Your task to perform on an android device: turn on airplane mode Image 0: 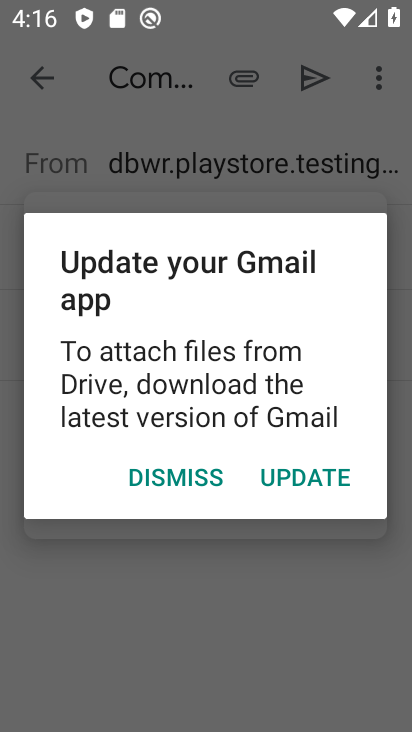
Step 0: click (181, 471)
Your task to perform on an android device: turn on airplane mode Image 1: 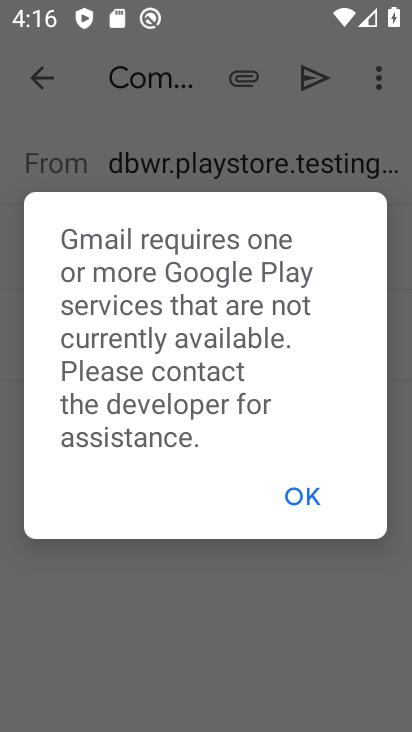
Step 1: click (305, 479)
Your task to perform on an android device: turn on airplane mode Image 2: 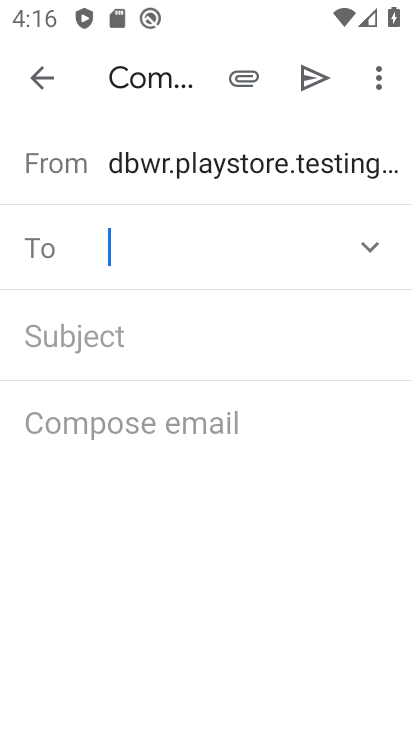
Step 2: click (33, 72)
Your task to perform on an android device: turn on airplane mode Image 3: 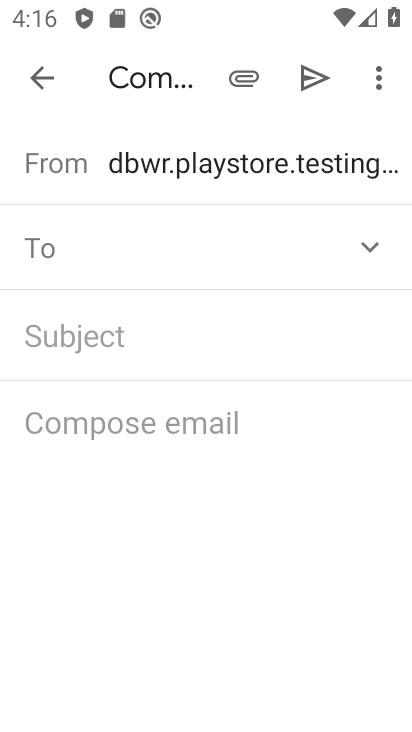
Step 3: click (35, 70)
Your task to perform on an android device: turn on airplane mode Image 4: 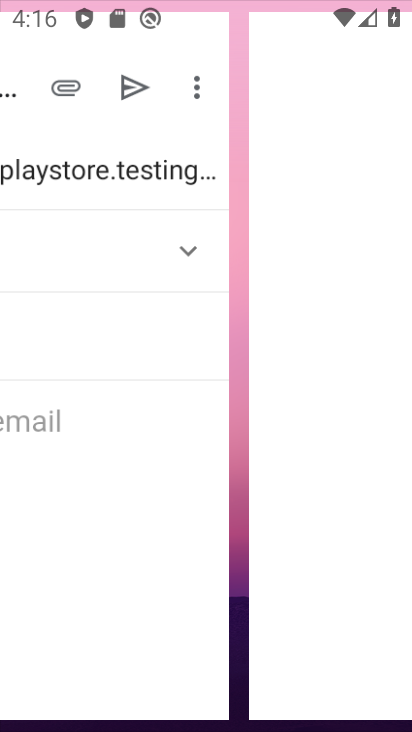
Step 4: click (35, 70)
Your task to perform on an android device: turn on airplane mode Image 5: 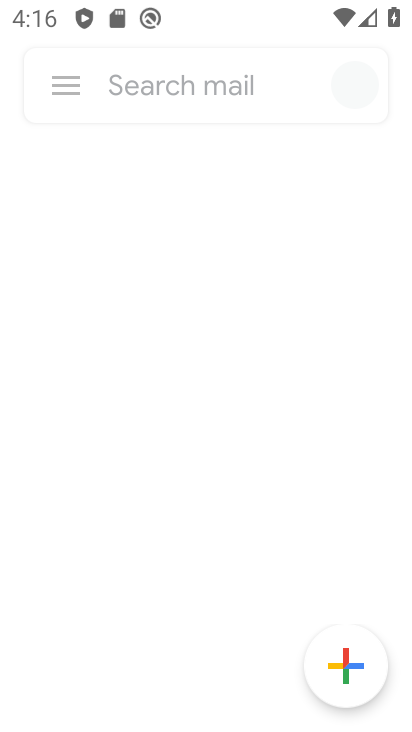
Step 5: click (35, 70)
Your task to perform on an android device: turn on airplane mode Image 6: 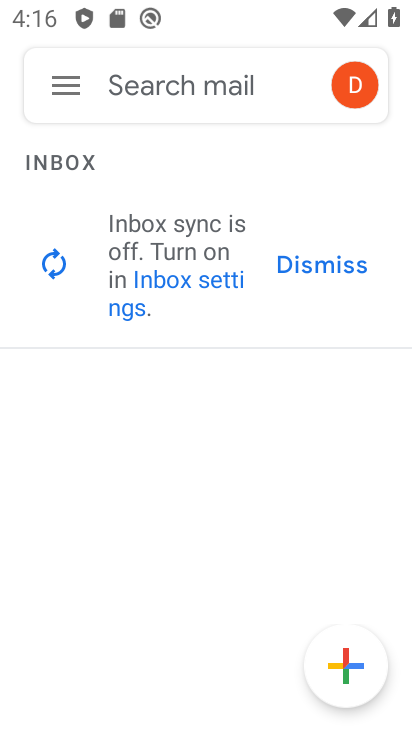
Step 6: press back button
Your task to perform on an android device: turn on airplane mode Image 7: 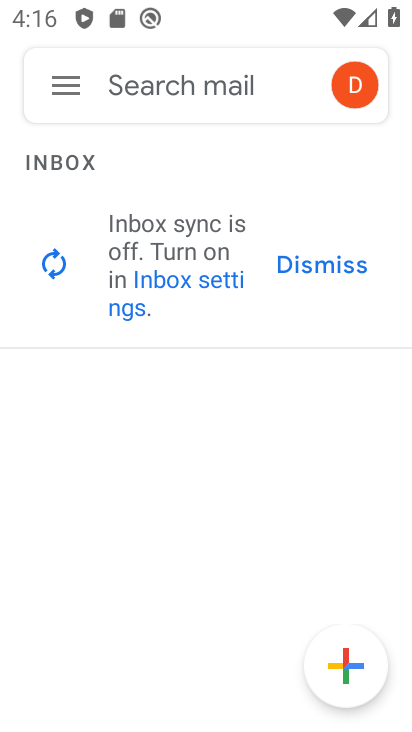
Step 7: press back button
Your task to perform on an android device: turn on airplane mode Image 8: 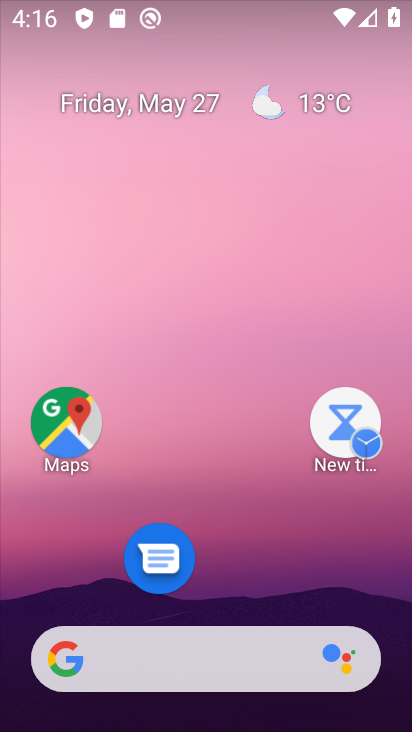
Step 8: drag from (216, 386) to (171, 200)
Your task to perform on an android device: turn on airplane mode Image 9: 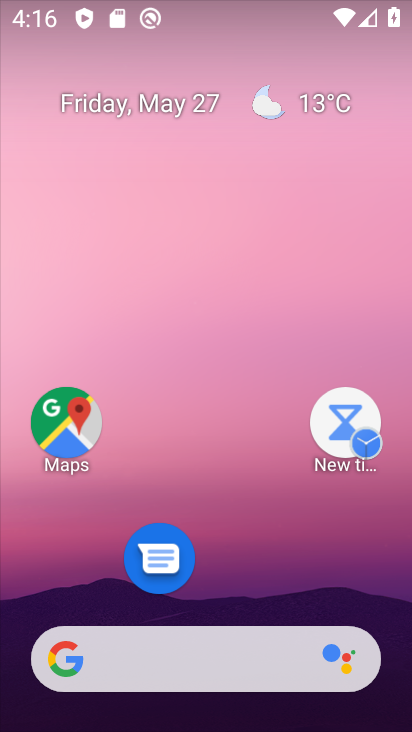
Step 9: drag from (250, 593) to (226, 214)
Your task to perform on an android device: turn on airplane mode Image 10: 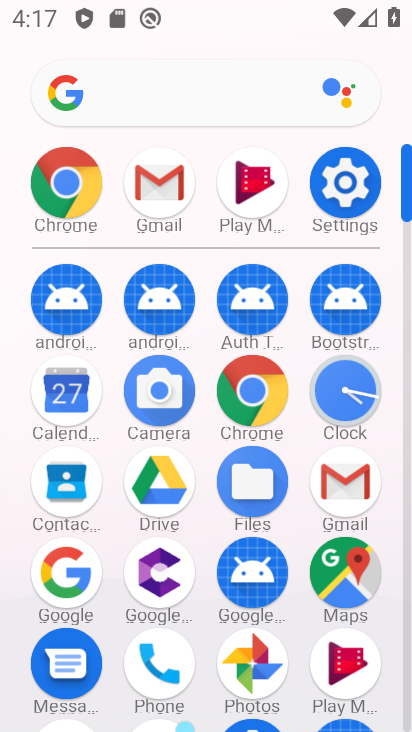
Step 10: click (259, 398)
Your task to perform on an android device: turn on airplane mode Image 11: 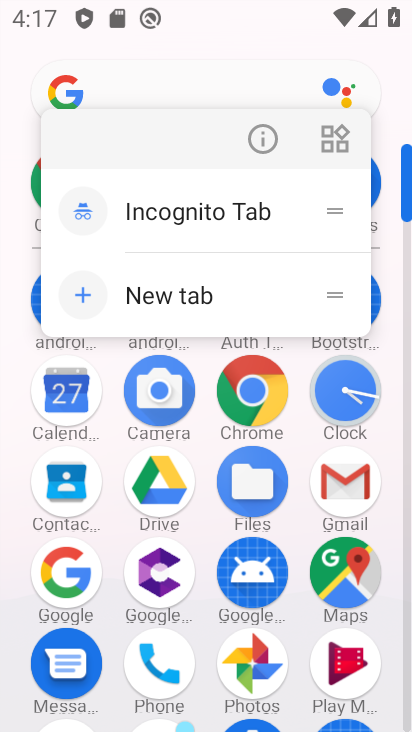
Step 11: click (259, 398)
Your task to perform on an android device: turn on airplane mode Image 12: 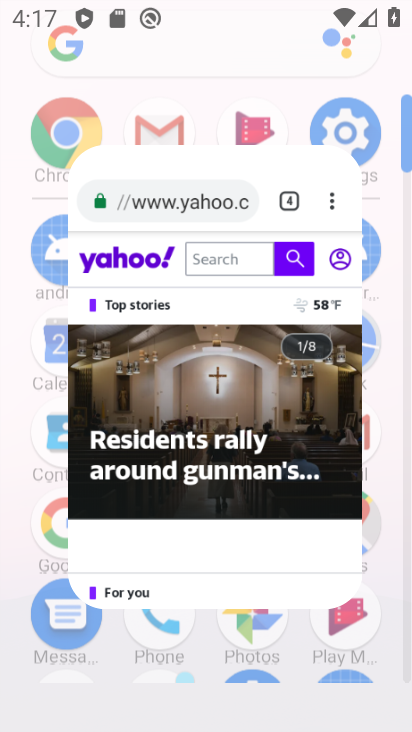
Step 12: click (259, 398)
Your task to perform on an android device: turn on airplane mode Image 13: 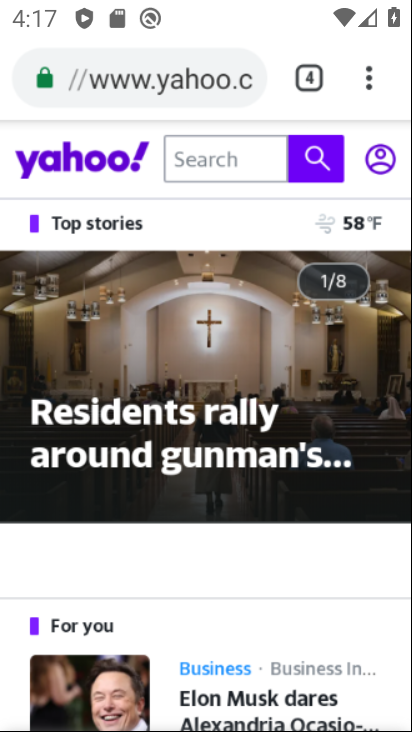
Step 13: click (259, 398)
Your task to perform on an android device: turn on airplane mode Image 14: 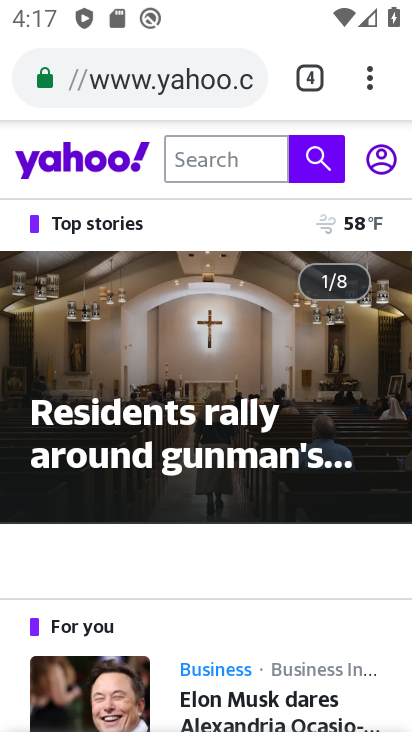
Step 14: press back button
Your task to perform on an android device: turn on airplane mode Image 15: 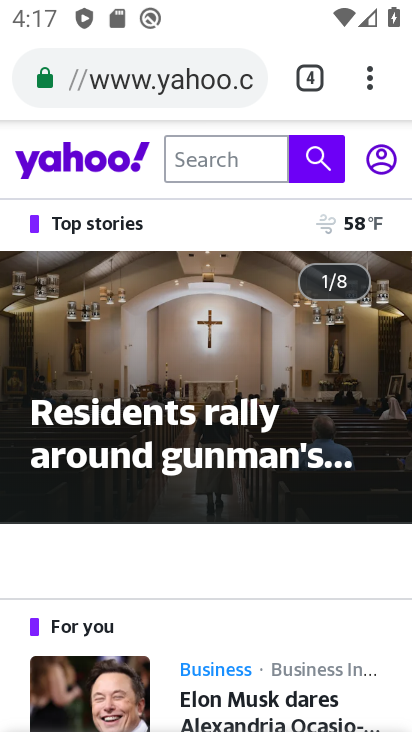
Step 15: press back button
Your task to perform on an android device: turn on airplane mode Image 16: 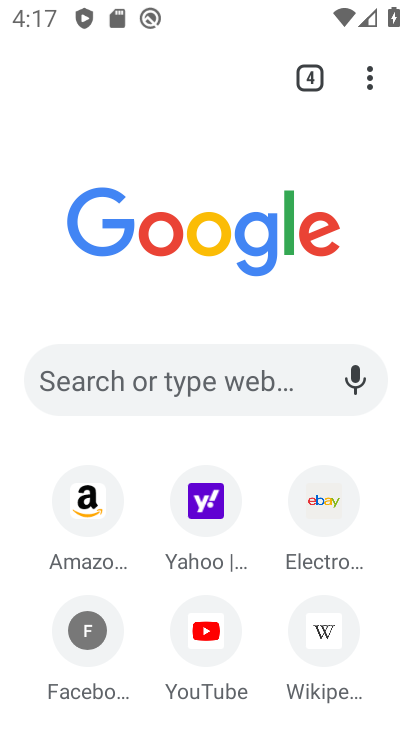
Step 16: press back button
Your task to perform on an android device: turn on airplane mode Image 17: 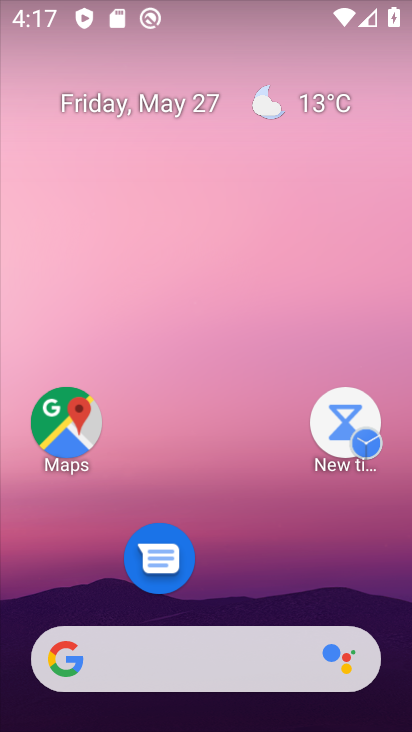
Step 17: drag from (278, 663) to (164, 126)
Your task to perform on an android device: turn on airplane mode Image 18: 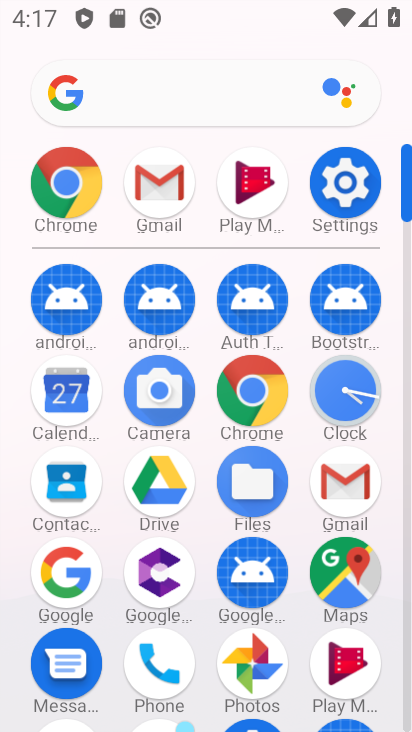
Step 18: click (348, 180)
Your task to perform on an android device: turn on airplane mode Image 19: 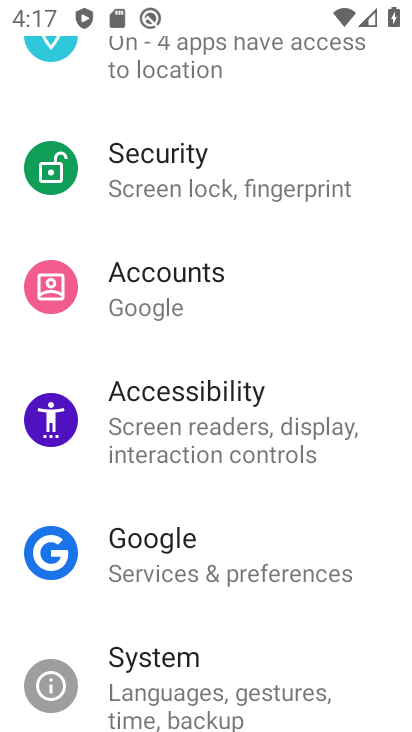
Step 19: click (176, 552)
Your task to perform on an android device: turn on airplane mode Image 20: 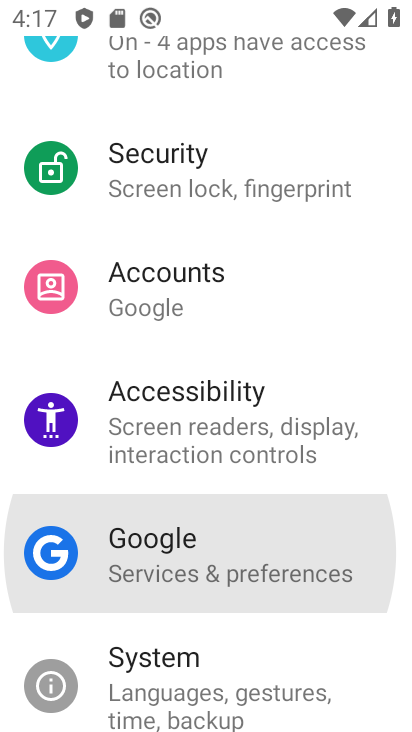
Step 20: drag from (182, 247) to (258, 577)
Your task to perform on an android device: turn on airplane mode Image 21: 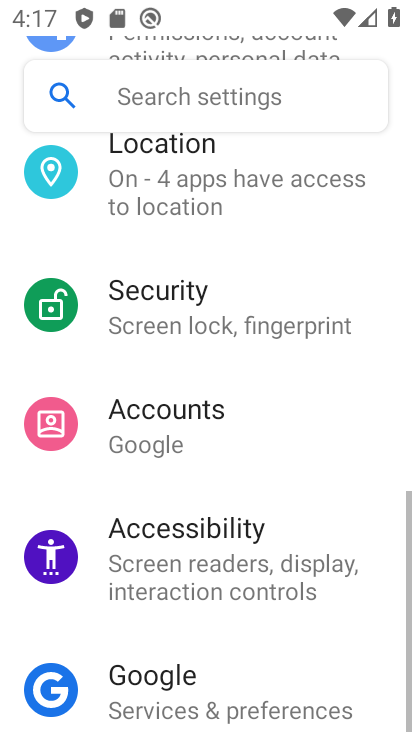
Step 21: drag from (179, 307) to (220, 572)
Your task to perform on an android device: turn on airplane mode Image 22: 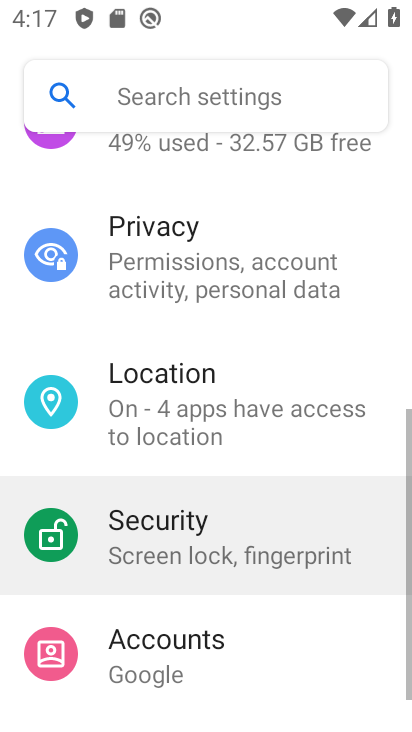
Step 22: drag from (205, 425) to (245, 581)
Your task to perform on an android device: turn on airplane mode Image 23: 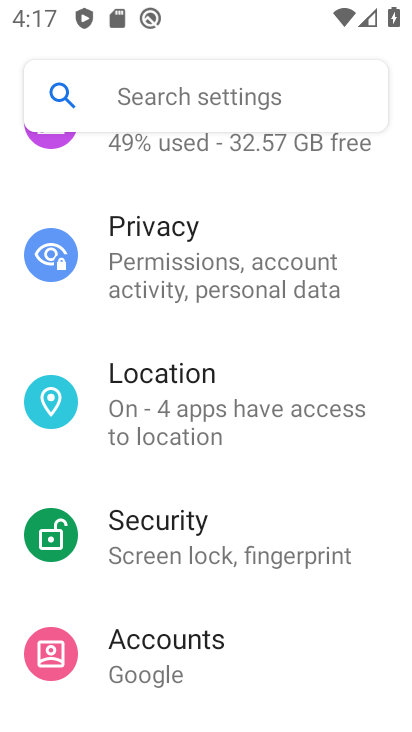
Step 23: drag from (242, 616) to (154, 654)
Your task to perform on an android device: turn on airplane mode Image 24: 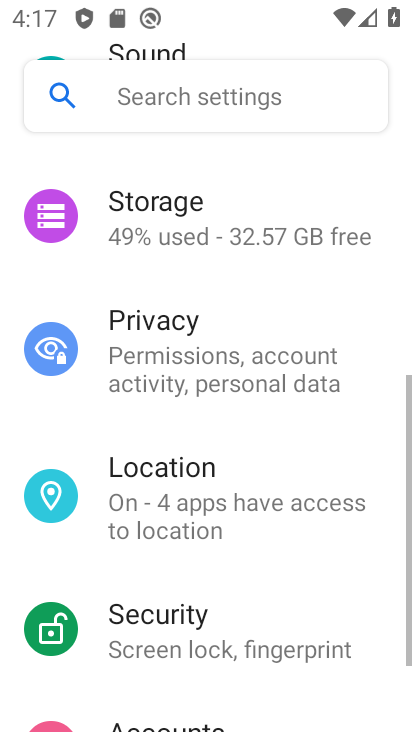
Step 24: drag from (99, 334) to (159, 651)
Your task to perform on an android device: turn on airplane mode Image 25: 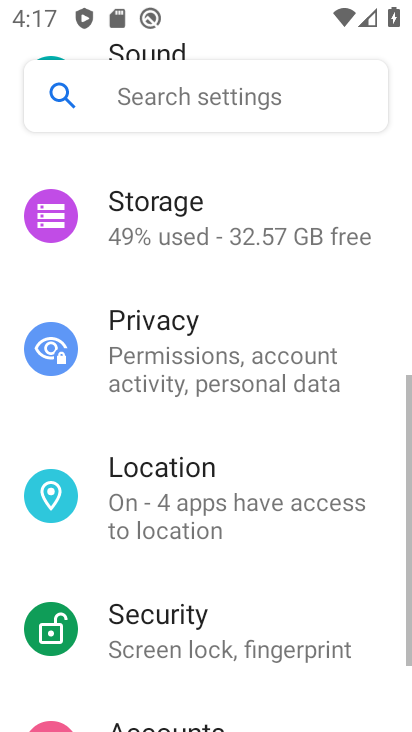
Step 25: drag from (196, 303) to (131, 515)
Your task to perform on an android device: turn on airplane mode Image 26: 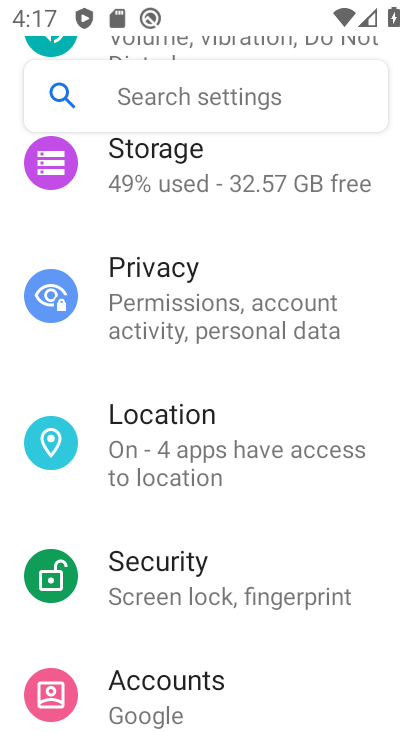
Step 26: drag from (235, 598) to (145, 609)
Your task to perform on an android device: turn on airplane mode Image 27: 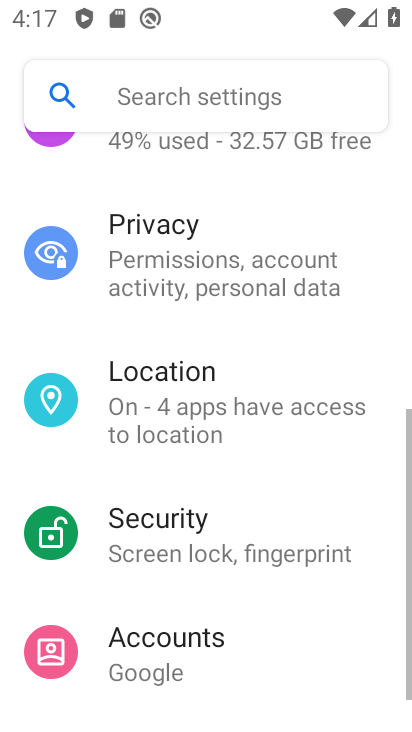
Step 27: drag from (101, 288) to (209, 560)
Your task to perform on an android device: turn on airplane mode Image 28: 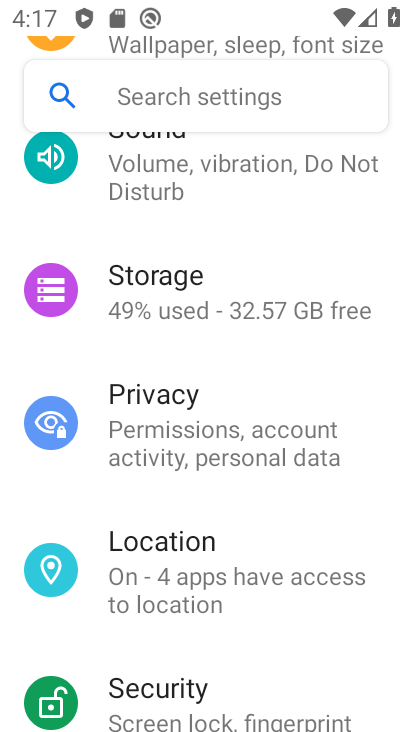
Step 28: drag from (202, 217) to (247, 491)
Your task to perform on an android device: turn on airplane mode Image 29: 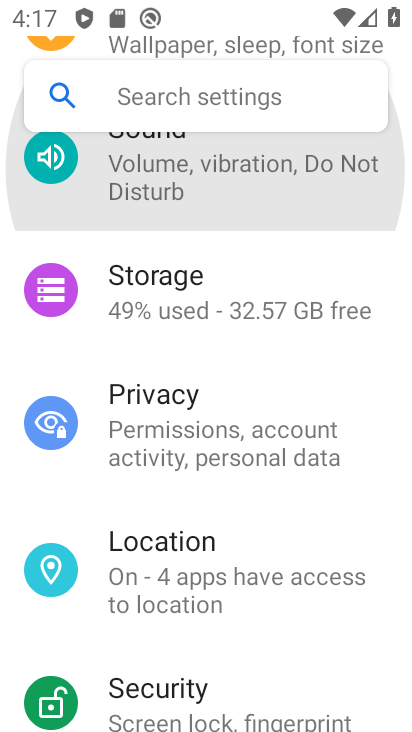
Step 29: drag from (176, 409) to (174, 561)
Your task to perform on an android device: turn on airplane mode Image 30: 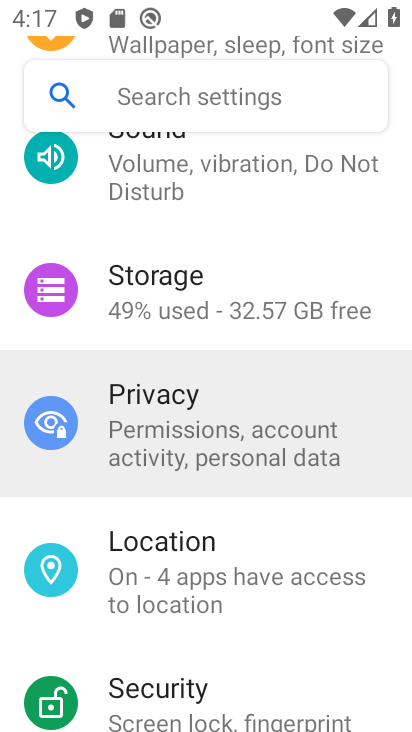
Step 30: drag from (162, 506) to (188, 583)
Your task to perform on an android device: turn on airplane mode Image 31: 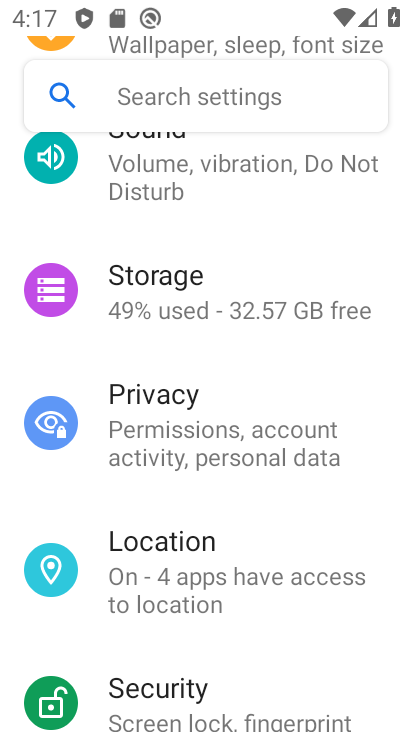
Step 31: drag from (161, 204) to (222, 518)
Your task to perform on an android device: turn on airplane mode Image 32: 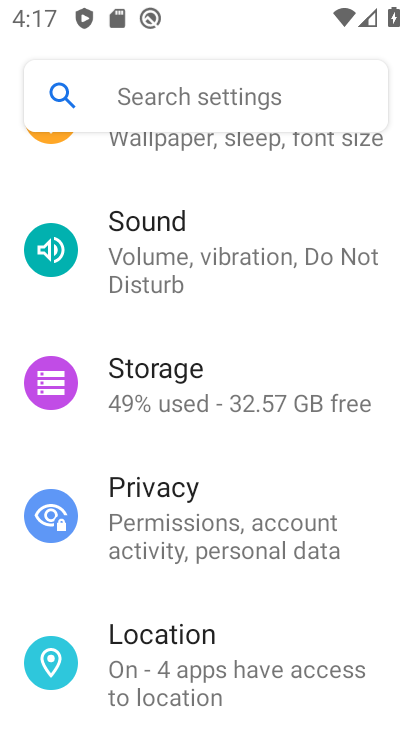
Step 32: drag from (168, 168) to (265, 515)
Your task to perform on an android device: turn on airplane mode Image 33: 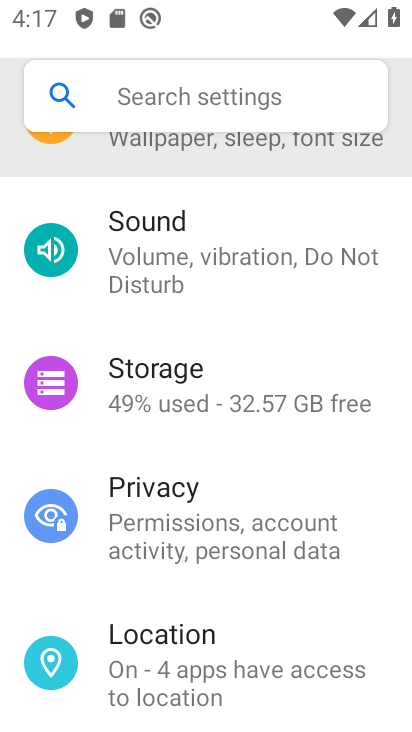
Step 33: drag from (206, 255) to (251, 574)
Your task to perform on an android device: turn on airplane mode Image 34: 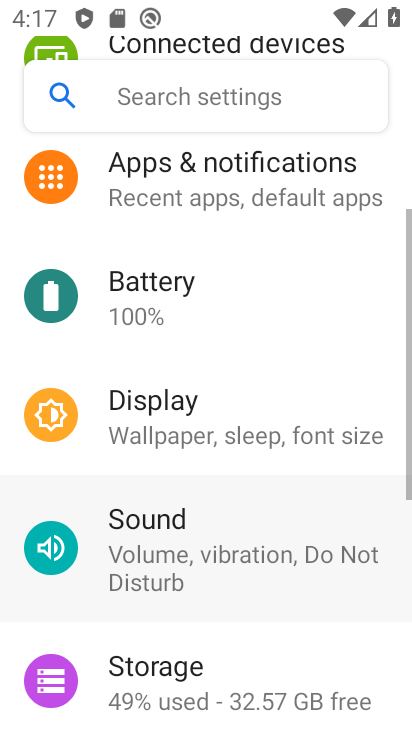
Step 34: drag from (232, 496) to (240, 533)
Your task to perform on an android device: turn on airplane mode Image 35: 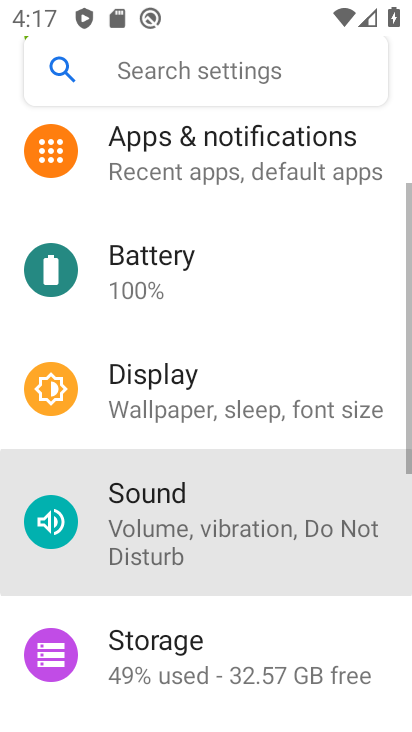
Step 35: click (262, 677)
Your task to perform on an android device: turn on airplane mode Image 36: 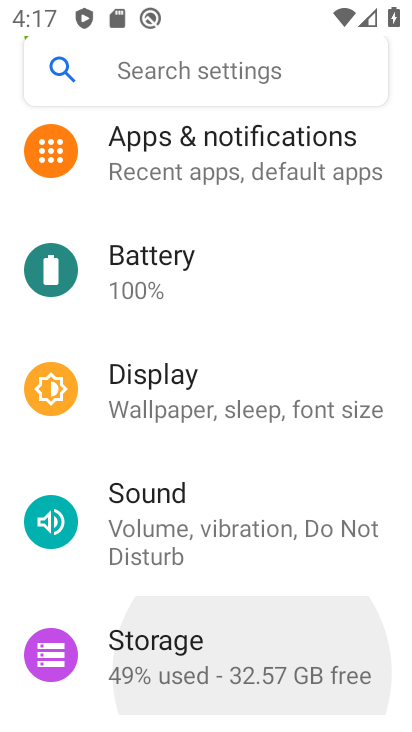
Step 36: drag from (191, 297) to (244, 622)
Your task to perform on an android device: turn on airplane mode Image 37: 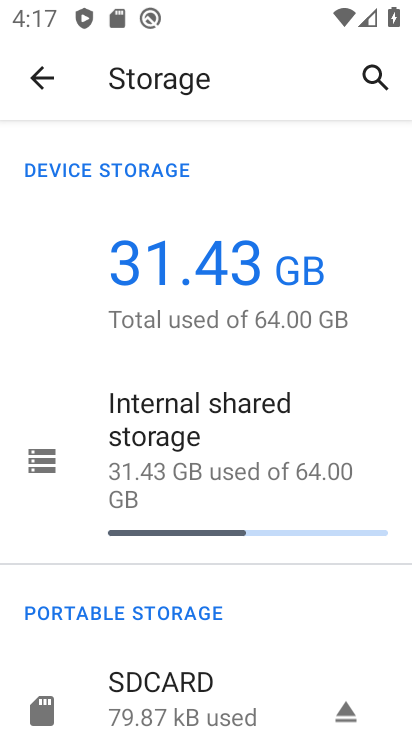
Step 37: click (33, 68)
Your task to perform on an android device: turn on airplane mode Image 38: 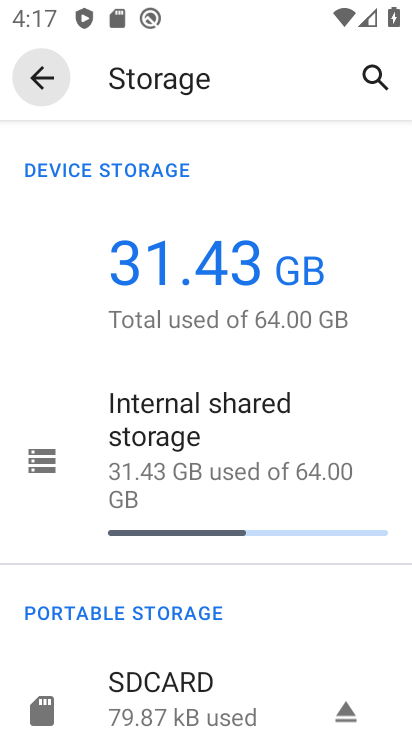
Step 38: click (34, 81)
Your task to perform on an android device: turn on airplane mode Image 39: 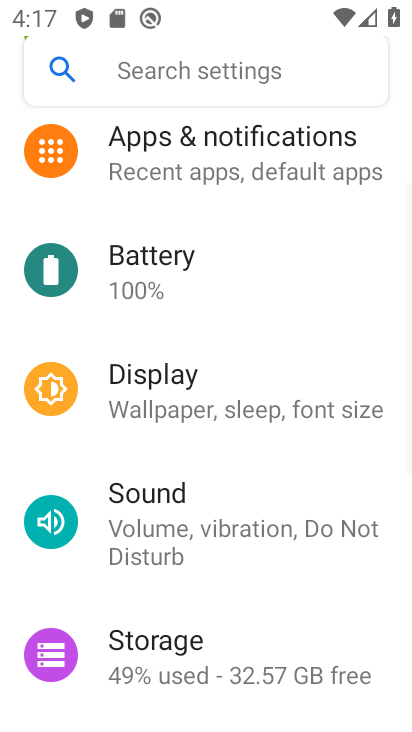
Step 39: drag from (214, 167) to (253, 470)
Your task to perform on an android device: turn on airplane mode Image 40: 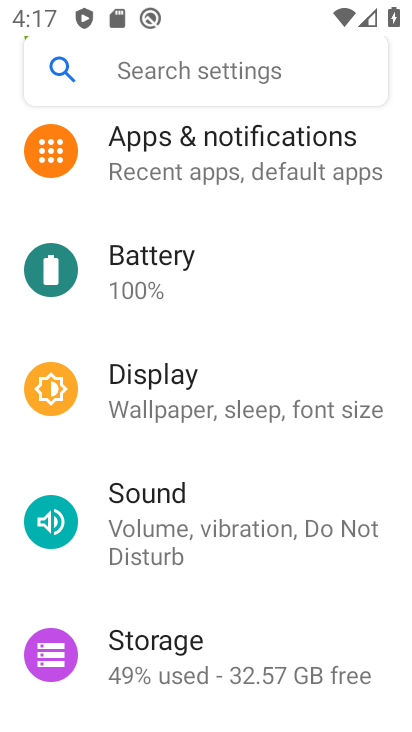
Step 40: click (326, 608)
Your task to perform on an android device: turn on airplane mode Image 41: 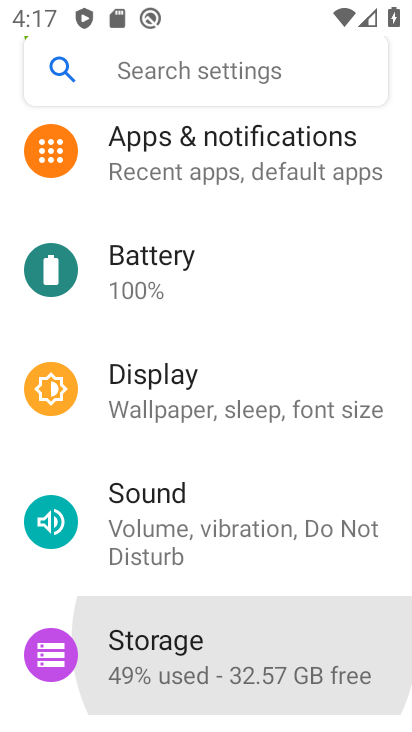
Step 41: drag from (241, 223) to (265, 646)
Your task to perform on an android device: turn on airplane mode Image 42: 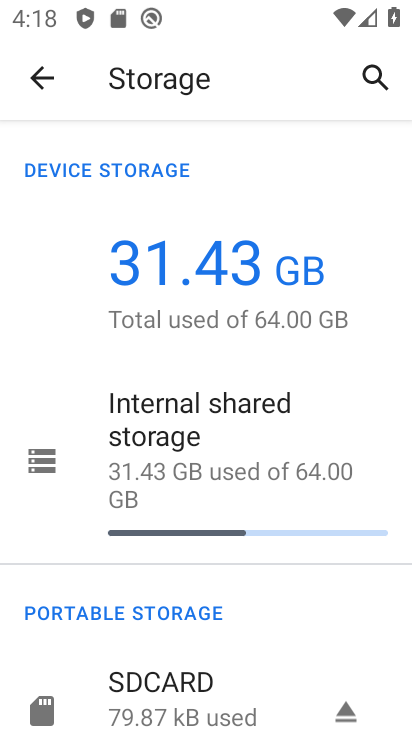
Step 42: click (36, 81)
Your task to perform on an android device: turn on airplane mode Image 43: 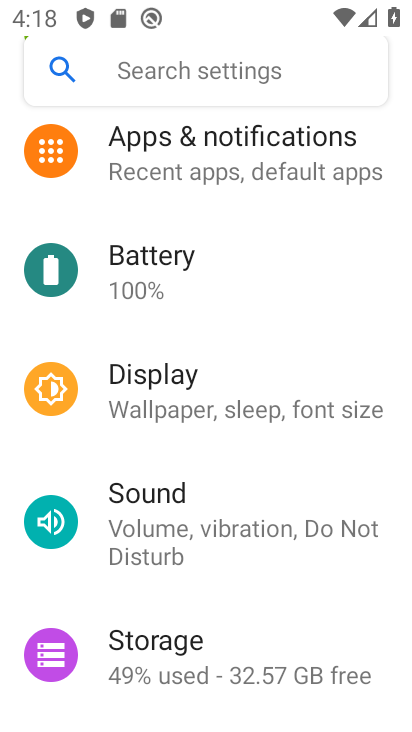
Step 43: drag from (196, 150) to (265, 450)
Your task to perform on an android device: turn on airplane mode Image 44: 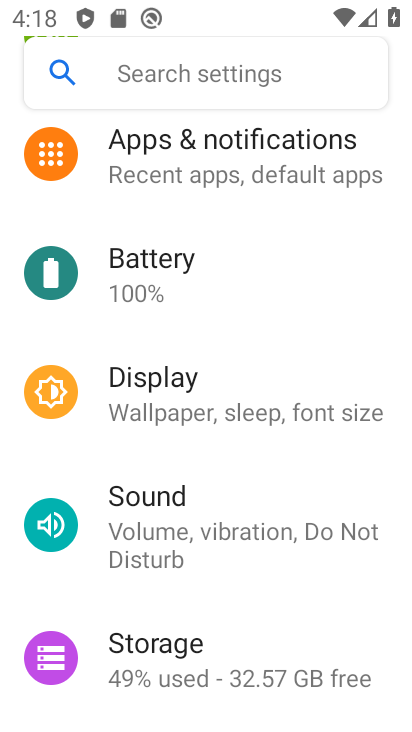
Step 44: drag from (205, 452) to (218, 492)
Your task to perform on an android device: turn on airplane mode Image 45: 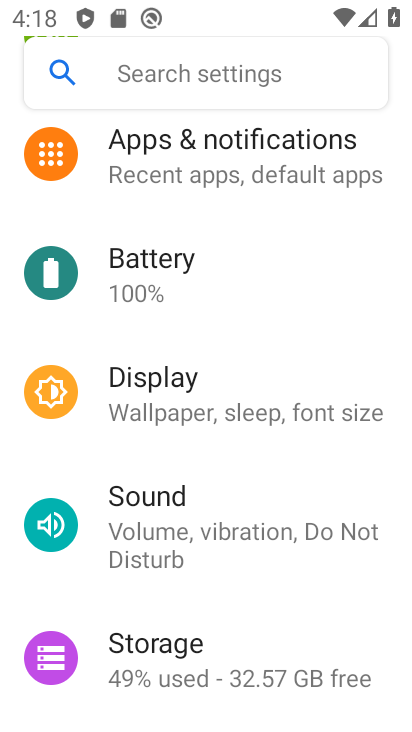
Step 45: drag from (231, 409) to (261, 585)
Your task to perform on an android device: turn on airplane mode Image 46: 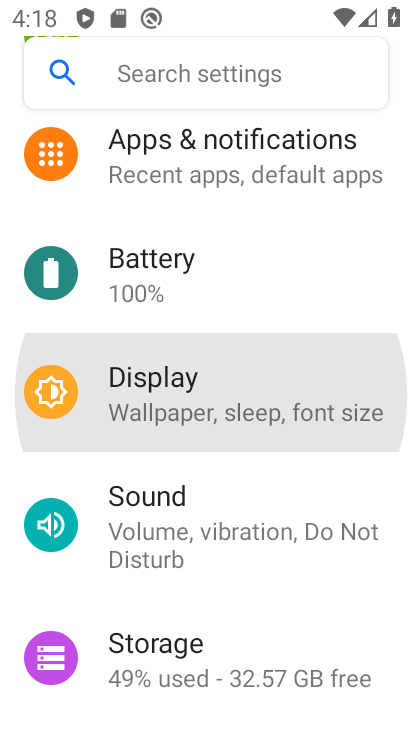
Step 46: drag from (142, 217) to (184, 524)
Your task to perform on an android device: turn on airplane mode Image 47: 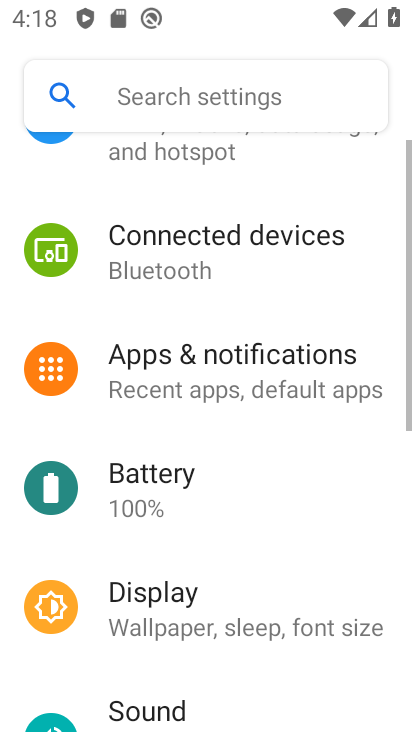
Step 47: drag from (143, 245) to (208, 509)
Your task to perform on an android device: turn on airplane mode Image 48: 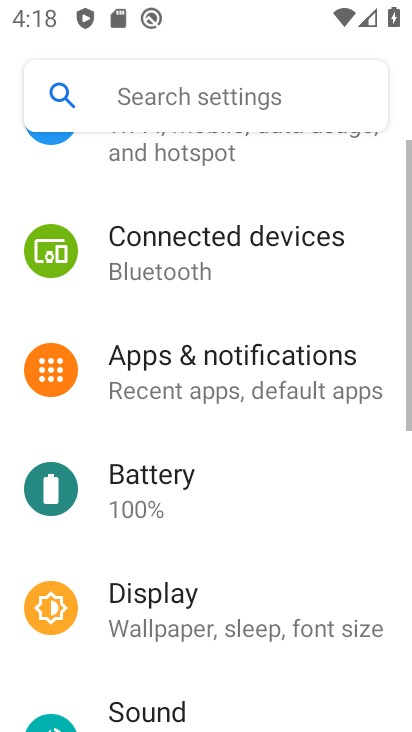
Step 48: drag from (266, 397) to (289, 558)
Your task to perform on an android device: turn on airplane mode Image 49: 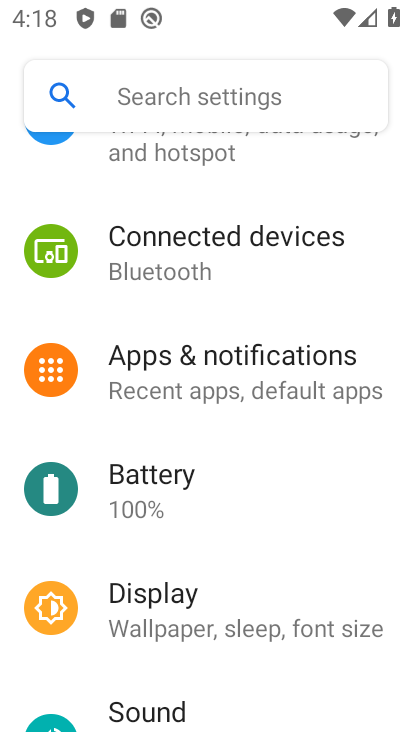
Step 49: drag from (201, 300) to (229, 499)
Your task to perform on an android device: turn on airplane mode Image 50: 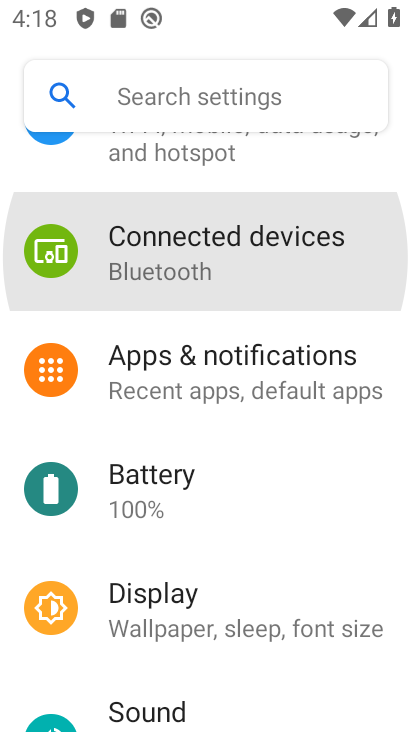
Step 50: drag from (182, 194) to (230, 573)
Your task to perform on an android device: turn on airplane mode Image 51: 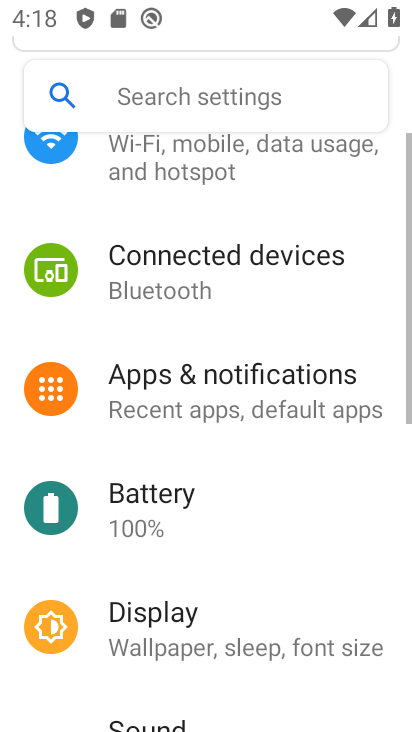
Step 51: drag from (218, 481) to (299, 597)
Your task to perform on an android device: turn on airplane mode Image 52: 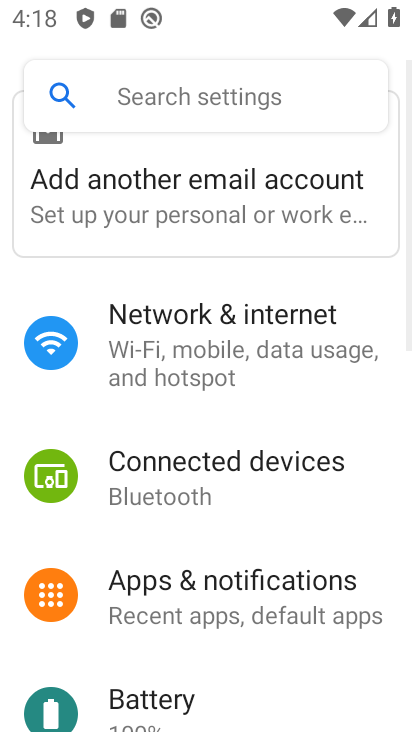
Step 52: drag from (214, 272) to (257, 458)
Your task to perform on an android device: turn on airplane mode Image 53: 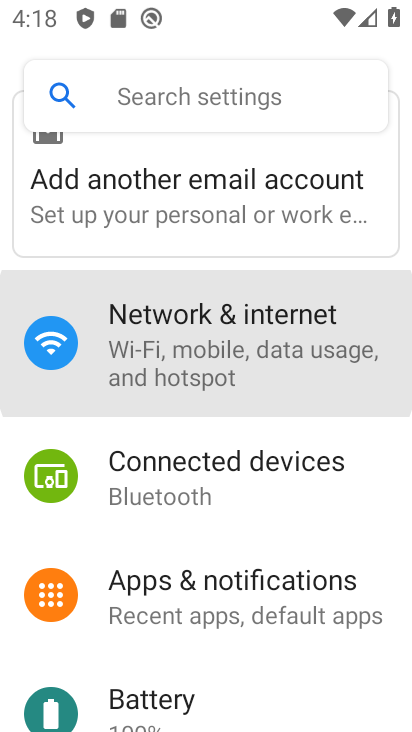
Step 53: drag from (226, 210) to (264, 460)
Your task to perform on an android device: turn on airplane mode Image 54: 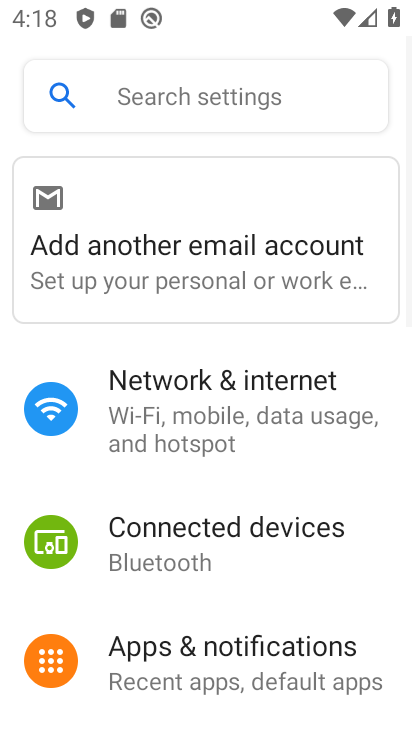
Step 54: click (203, 361)
Your task to perform on an android device: turn on airplane mode Image 55: 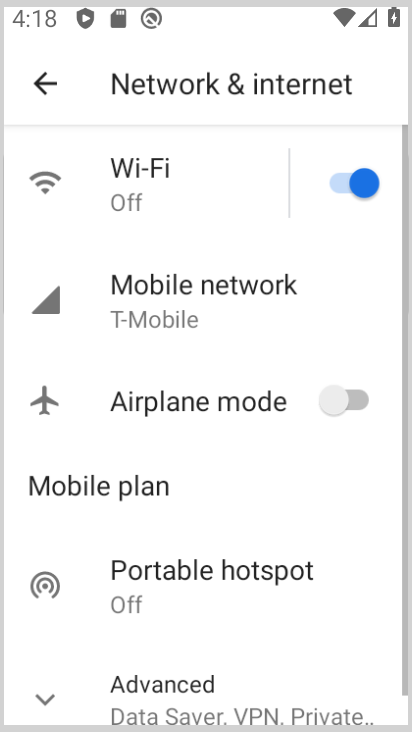
Step 55: click (216, 411)
Your task to perform on an android device: turn on airplane mode Image 56: 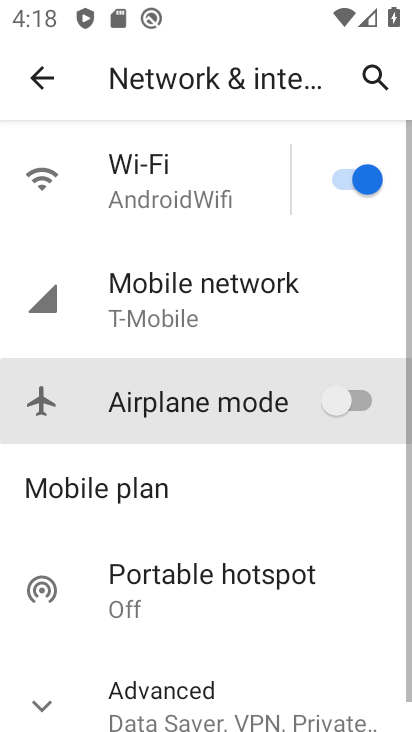
Step 56: click (220, 413)
Your task to perform on an android device: turn on airplane mode Image 57: 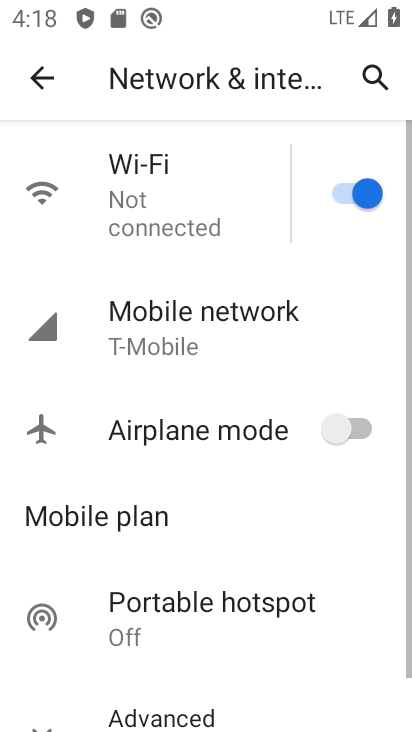
Step 57: click (339, 170)
Your task to perform on an android device: turn on airplane mode Image 58: 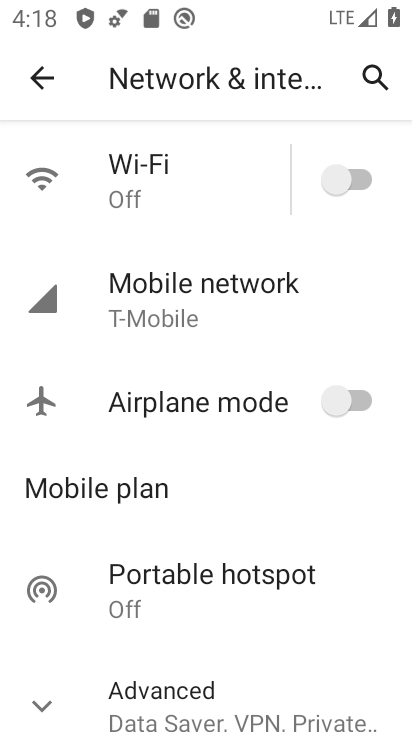
Step 58: click (327, 187)
Your task to perform on an android device: turn on airplane mode Image 59: 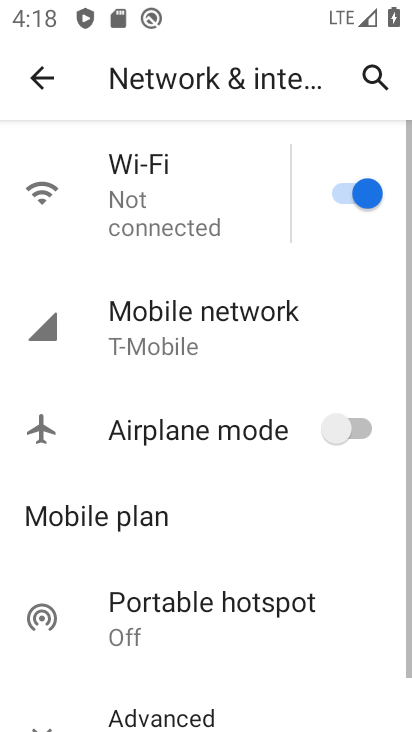
Step 59: click (347, 398)
Your task to perform on an android device: turn on airplane mode Image 60: 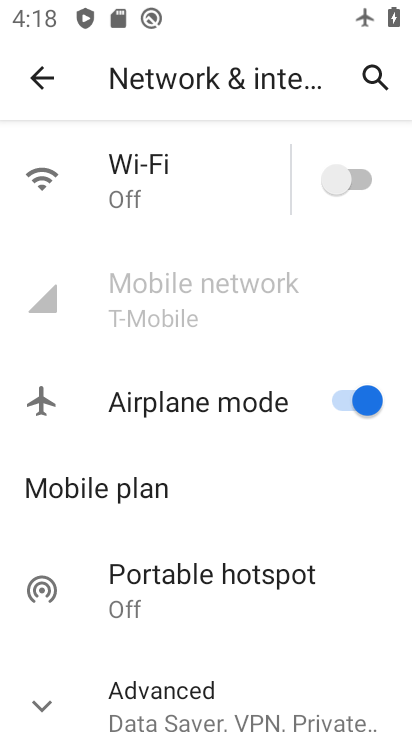
Step 60: task complete